Your task to perform on an android device: Go to wifi settings Image 0: 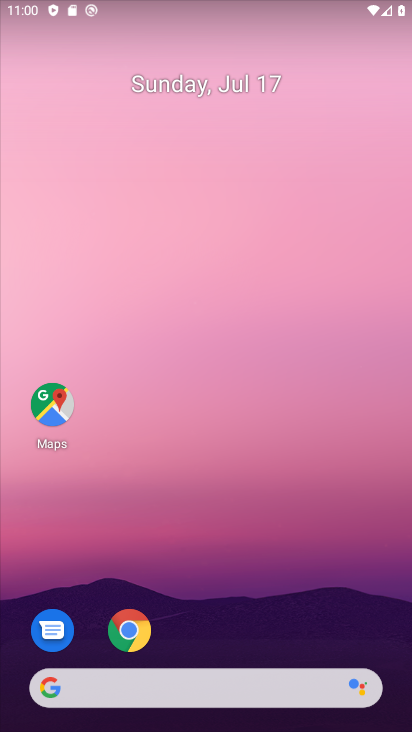
Step 0: drag from (229, 655) to (205, 10)
Your task to perform on an android device: Go to wifi settings Image 1: 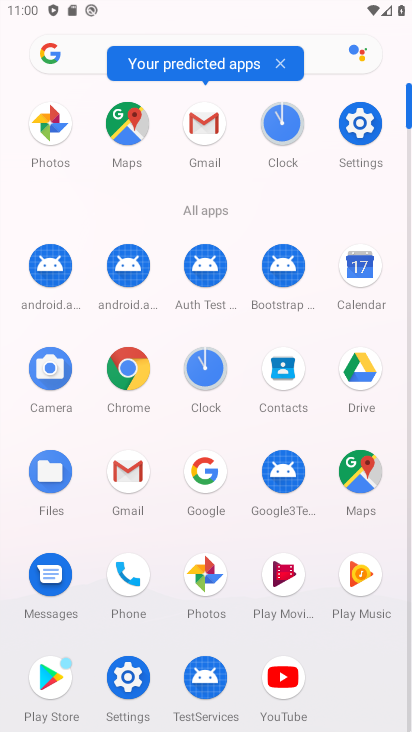
Step 1: click (128, 689)
Your task to perform on an android device: Go to wifi settings Image 2: 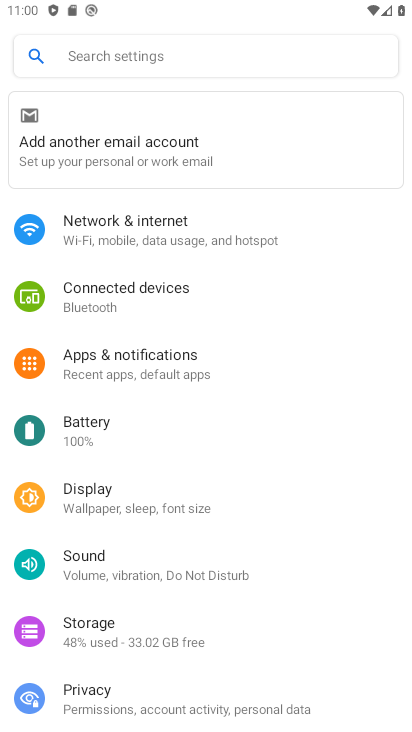
Step 2: click (142, 236)
Your task to perform on an android device: Go to wifi settings Image 3: 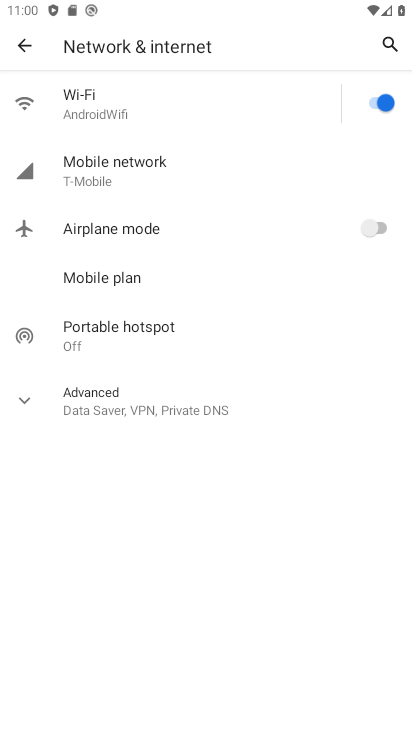
Step 3: click (104, 108)
Your task to perform on an android device: Go to wifi settings Image 4: 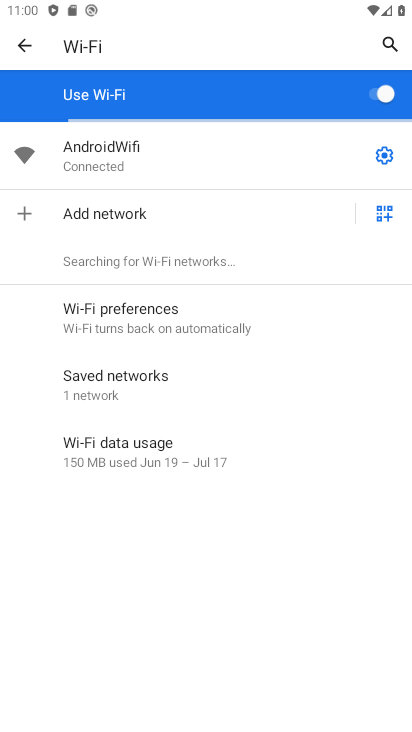
Step 4: task complete